Your task to perform on an android device: Open network settings Image 0: 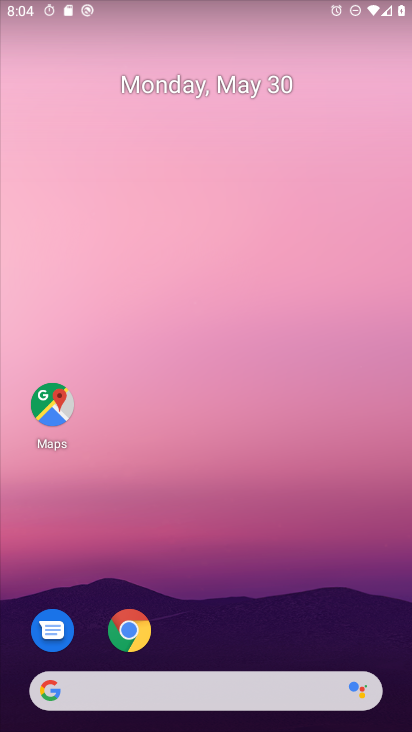
Step 0: drag from (358, 623) to (324, 59)
Your task to perform on an android device: Open network settings Image 1: 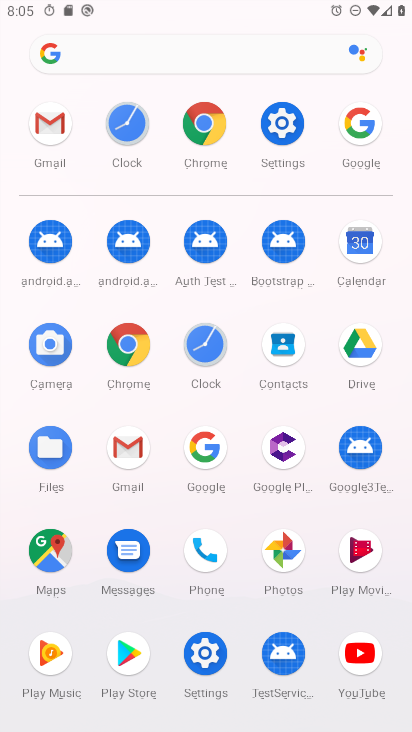
Step 1: click (208, 674)
Your task to perform on an android device: Open network settings Image 2: 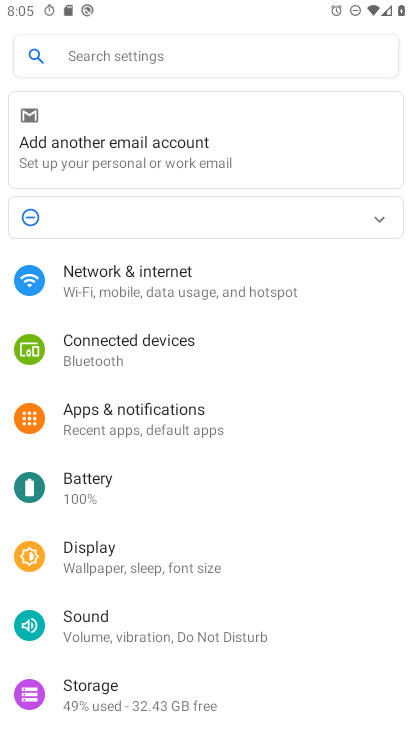
Step 2: click (218, 283)
Your task to perform on an android device: Open network settings Image 3: 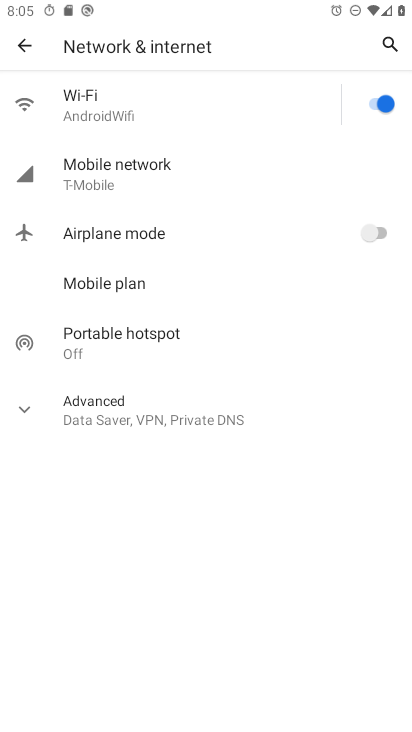
Step 3: task complete